Your task to perform on an android device: Do I have any events today? Image 0: 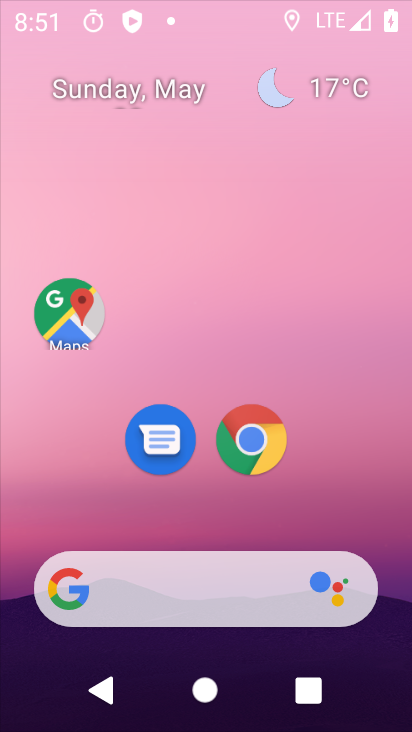
Step 0: click (308, 244)
Your task to perform on an android device: Do I have any events today? Image 1: 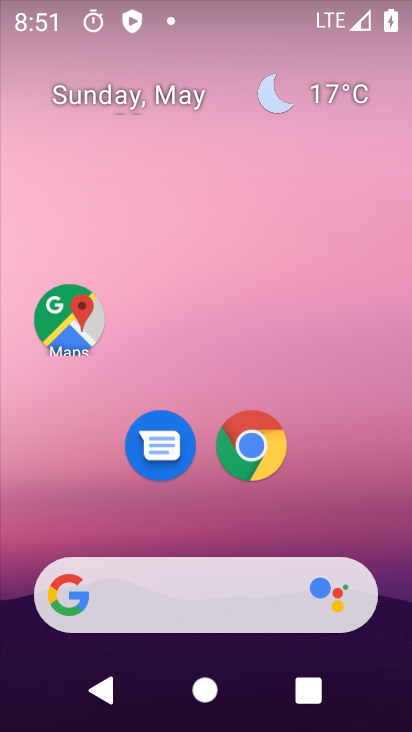
Step 1: drag from (182, 538) to (255, 96)
Your task to perform on an android device: Do I have any events today? Image 2: 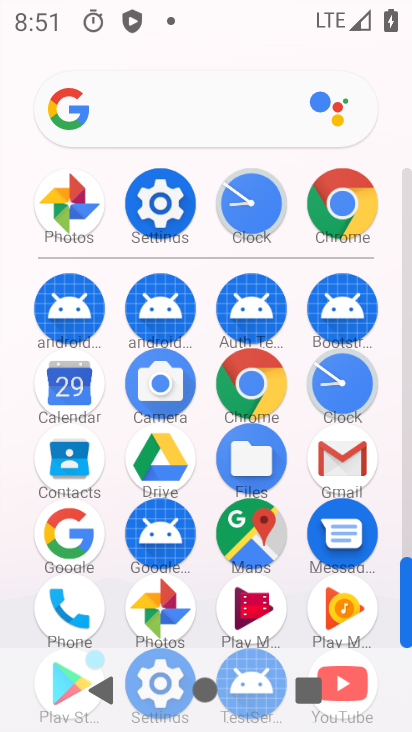
Step 2: click (71, 378)
Your task to perform on an android device: Do I have any events today? Image 3: 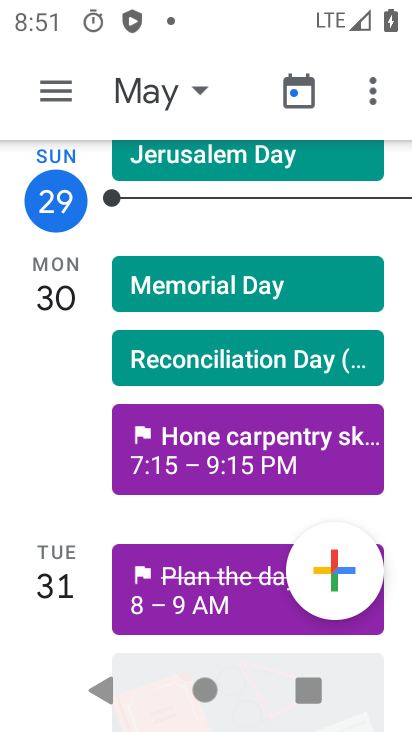
Step 3: click (195, 93)
Your task to perform on an android device: Do I have any events today? Image 4: 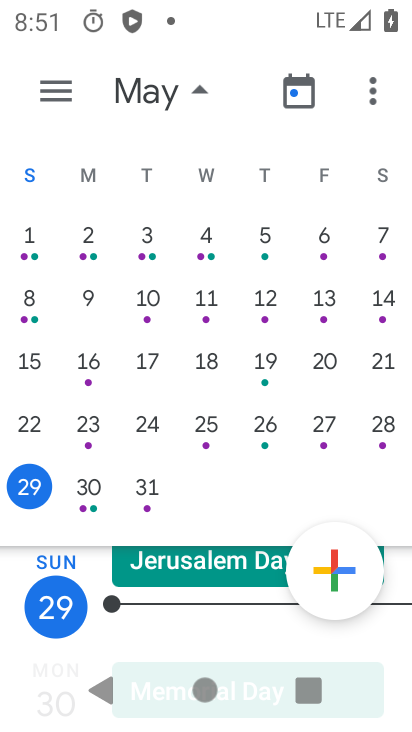
Step 4: click (26, 492)
Your task to perform on an android device: Do I have any events today? Image 5: 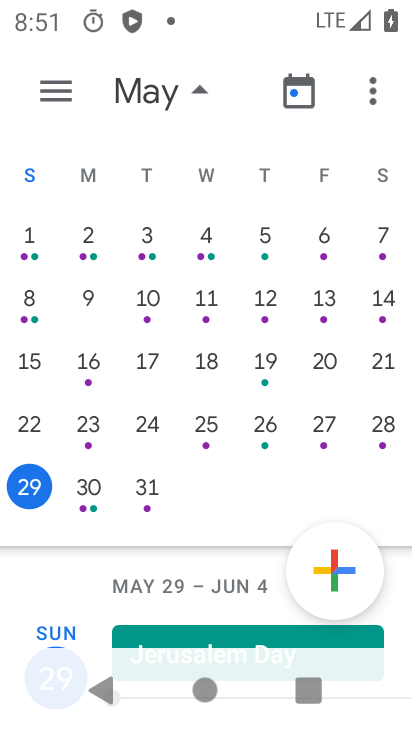
Step 5: click (26, 492)
Your task to perform on an android device: Do I have any events today? Image 6: 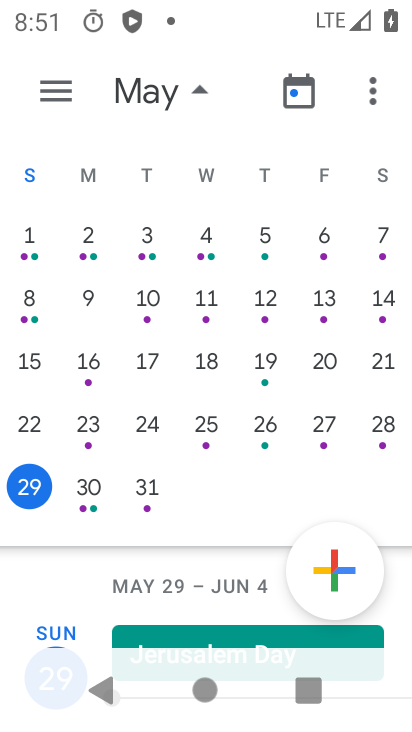
Step 6: click (25, 490)
Your task to perform on an android device: Do I have any events today? Image 7: 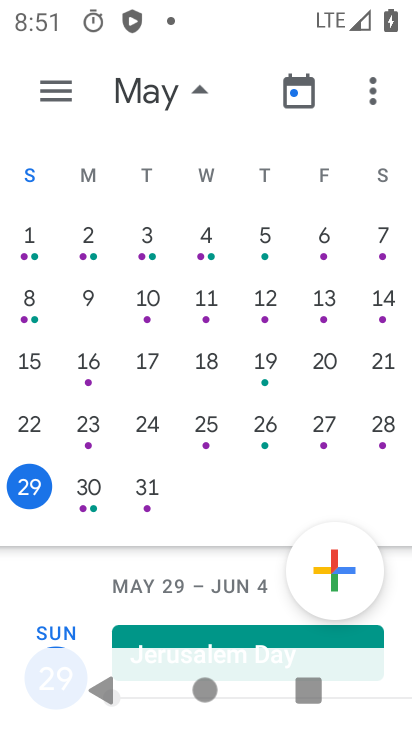
Step 7: task complete